Your task to perform on an android device: Open calendar and show me the first week of next month Image 0: 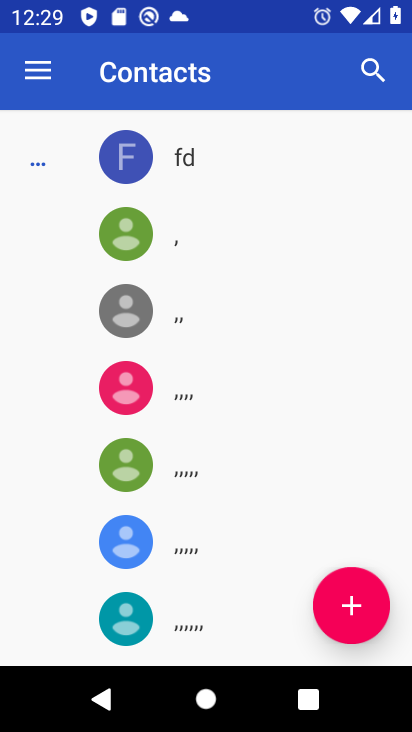
Step 0: press home button
Your task to perform on an android device: Open calendar and show me the first week of next month Image 1: 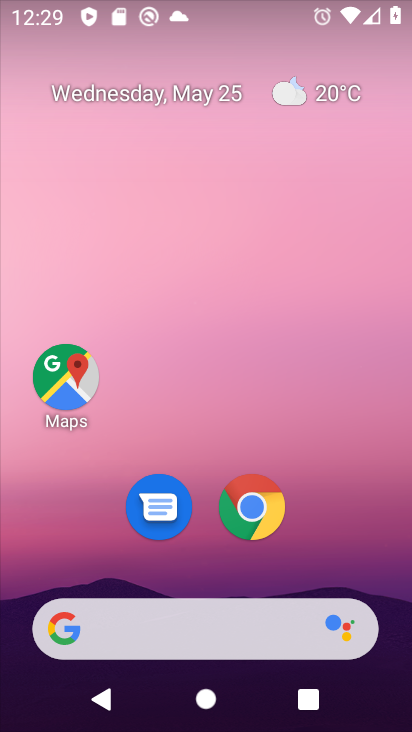
Step 1: drag from (352, 571) to (349, 141)
Your task to perform on an android device: Open calendar and show me the first week of next month Image 2: 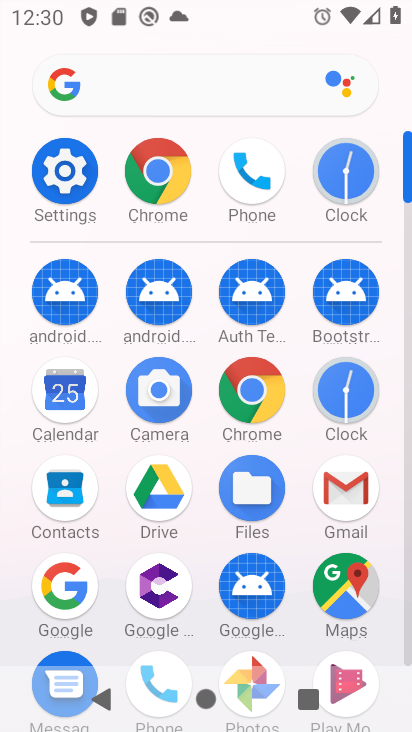
Step 2: click (57, 394)
Your task to perform on an android device: Open calendar and show me the first week of next month Image 3: 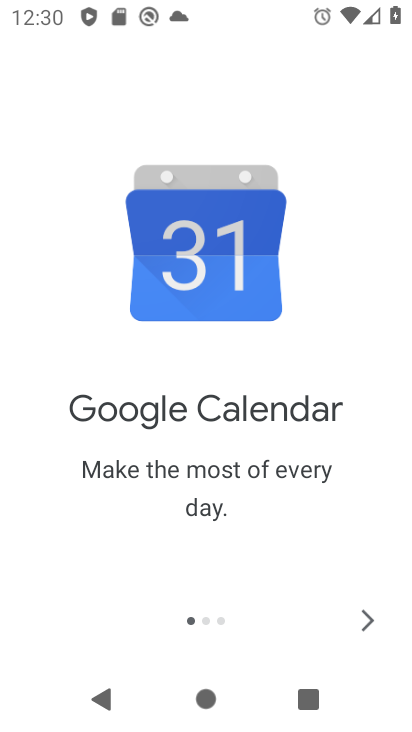
Step 3: click (368, 625)
Your task to perform on an android device: Open calendar and show me the first week of next month Image 4: 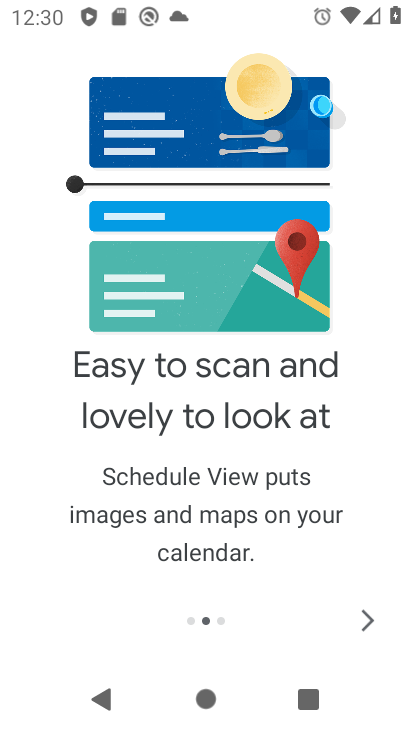
Step 4: click (368, 625)
Your task to perform on an android device: Open calendar and show me the first week of next month Image 5: 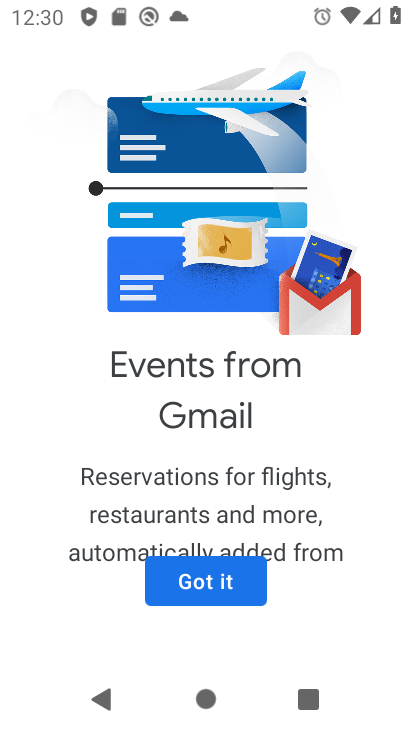
Step 5: click (231, 578)
Your task to perform on an android device: Open calendar and show me the first week of next month Image 6: 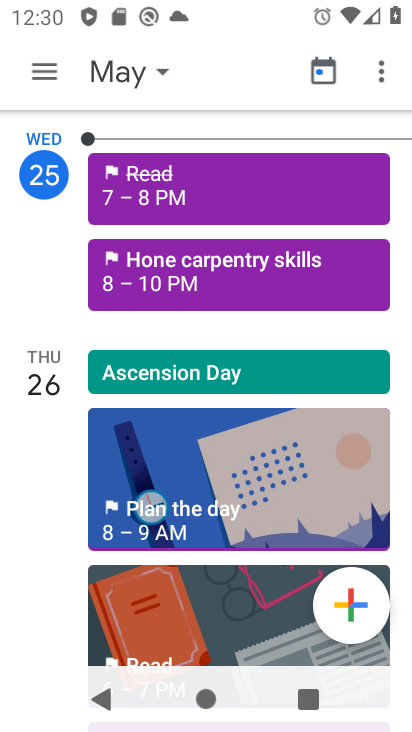
Step 6: click (125, 82)
Your task to perform on an android device: Open calendar and show me the first week of next month Image 7: 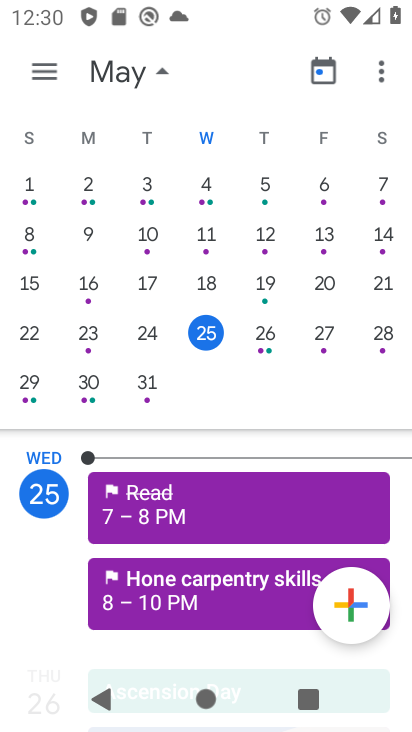
Step 7: drag from (354, 265) to (2, 240)
Your task to perform on an android device: Open calendar and show me the first week of next month Image 8: 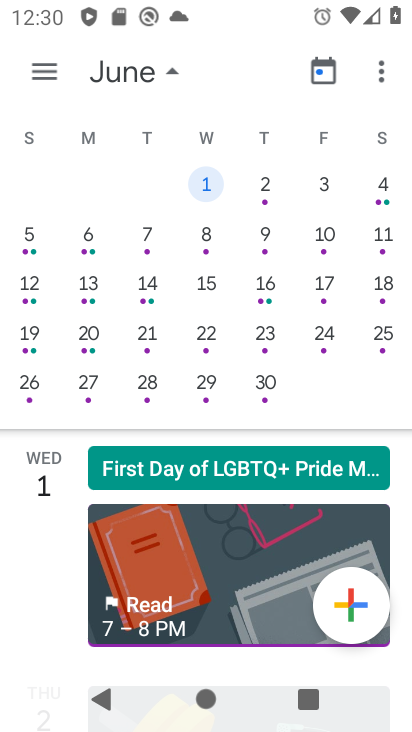
Step 8: click (205, 177)
Your task to perform on an android device: Open calendar and show me the first week of next month Image 9: 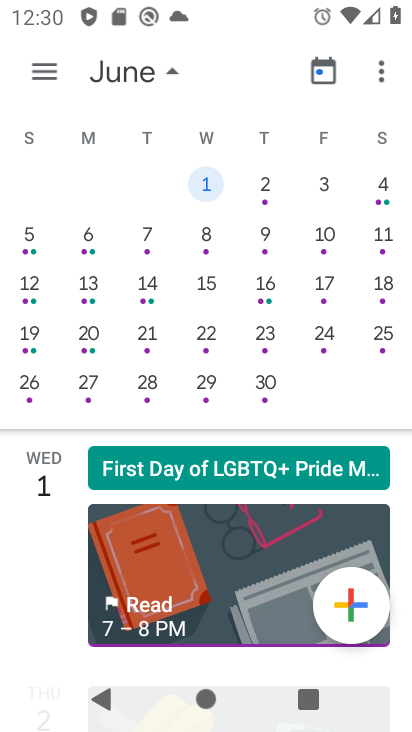
Step 9: click (209, 193)
Your task to perform on an android device: Open calendar and show me the first week of next month Image 10: 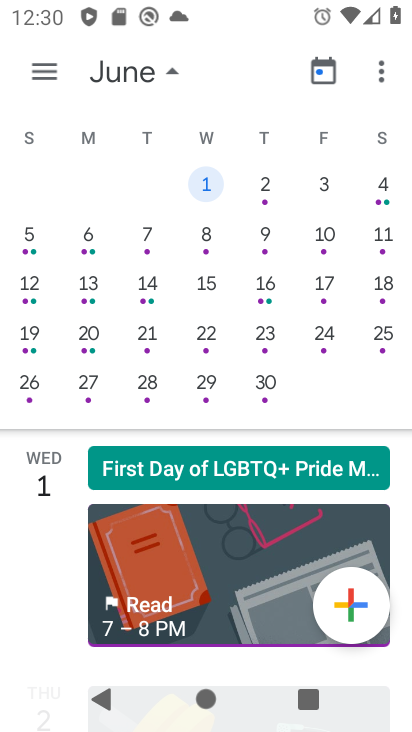
Step 10: task complete